Your task to perform on an android device: Go to sound settings Image 0: 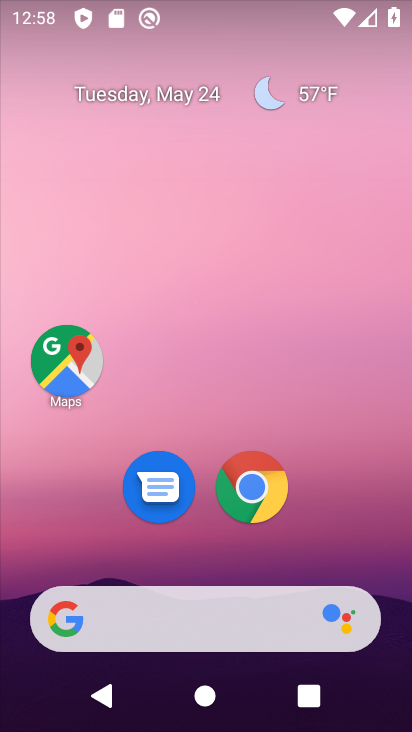
Step 0: drag from (230, 721) to (231, 25)
Your task to perform on an android device: Go to sound settings Image 1: 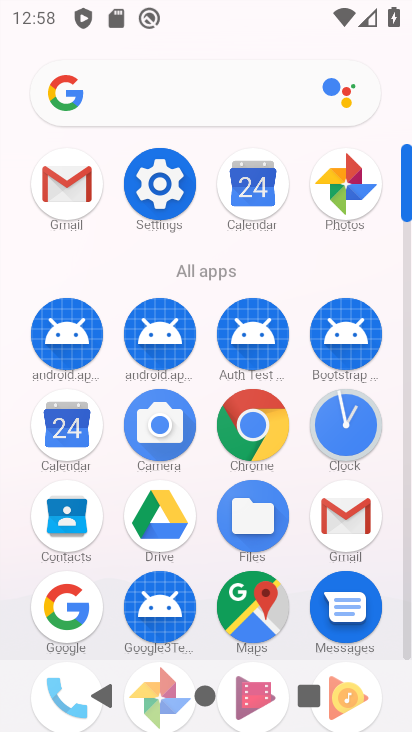
Step 1: click (176, 175)
Your task to perform on an android device: Go to sound settings Image 2: 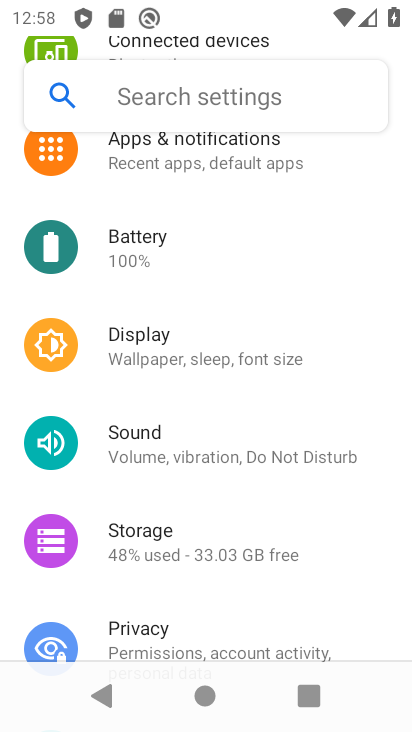
Step 2: click (162, 447)
Your task to perform on an android device: Go to sound settings Image 3: 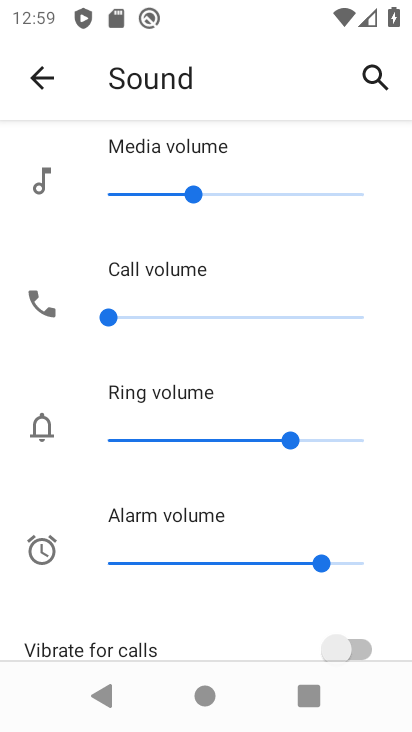
Step 3: task complete